Your task to perform on an android device: remove spam from my inbox in the gmail app Image 0: 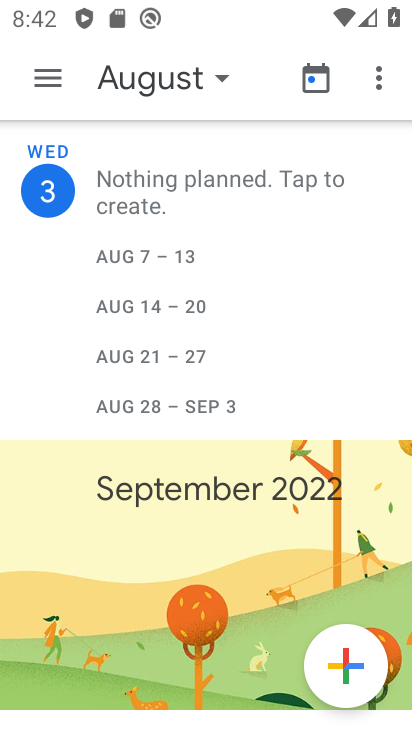
Step 0: press home button
Your task to perform on an android device: remove spam from my inbox in the gmail app Image 1: 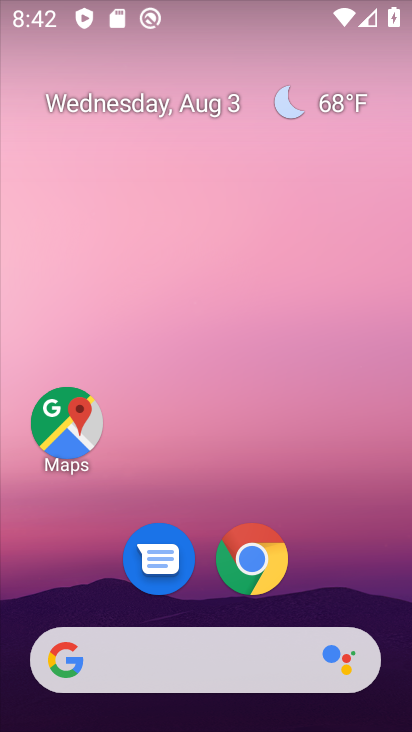
Step 1: drag from (354, 585) to (223, 88)
Your task to perform on an android device: remove spam from my inbox in the gmail app Image 2: 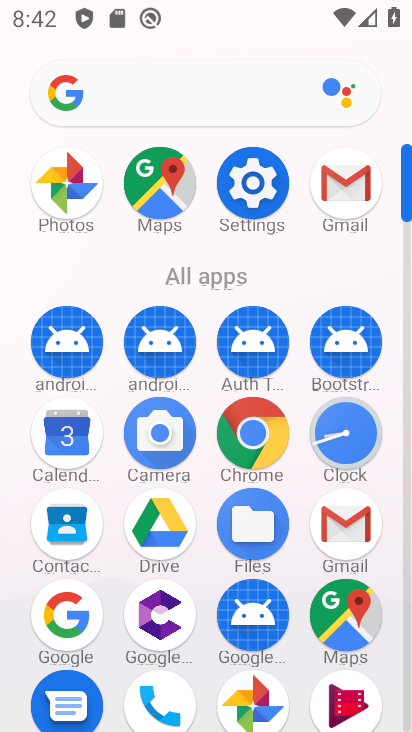
Step 2: click (339, 210)
Your task to perform on an android device: remove spam from my inbox in the gmail app Image 3: 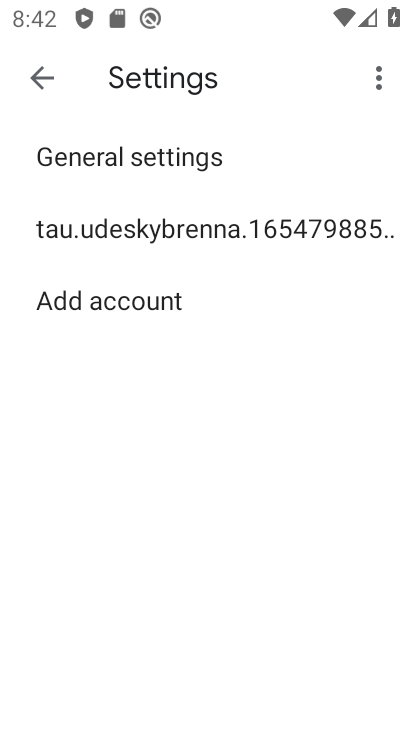
Step 3: click (43, 72)
Your task to perform on an android device: remove spam from my inbox in the gmail app Image 4: 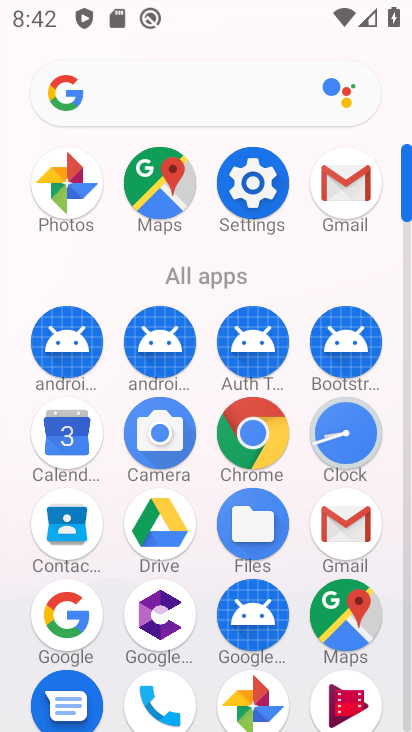
Step 4: click (334, 180)
Your task to perform on an android device: remove spam from my inbox in the gmail app Image 5: 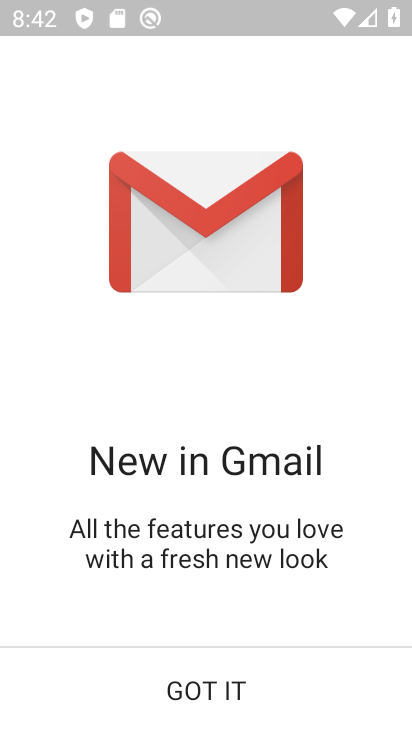
Step 5: click (215, 697)
Your task to perform on an android device: remove spam from my inbox in the gmail app Image 6: 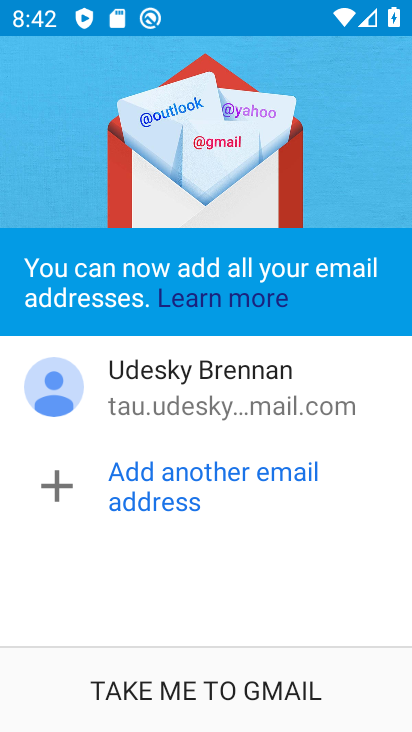
Step 6: click (244, 693)
Your task to perform on an android device: remove spam from my inbox in the gmail app Image 7: 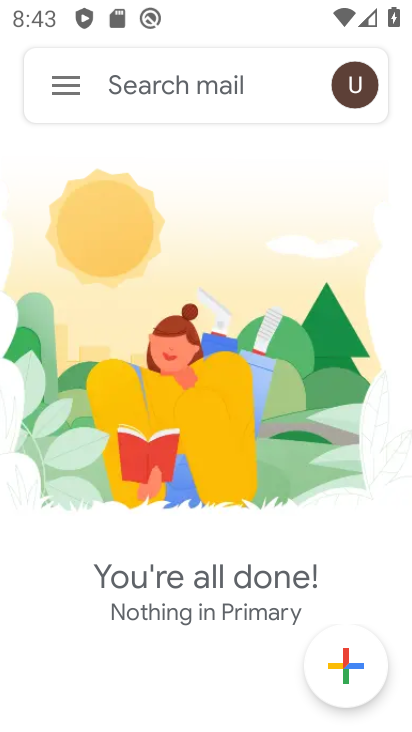
Step 7: click (64, 90)
Your task to perform on an android device: remove spam from my inbox in the gmail app Image 8: 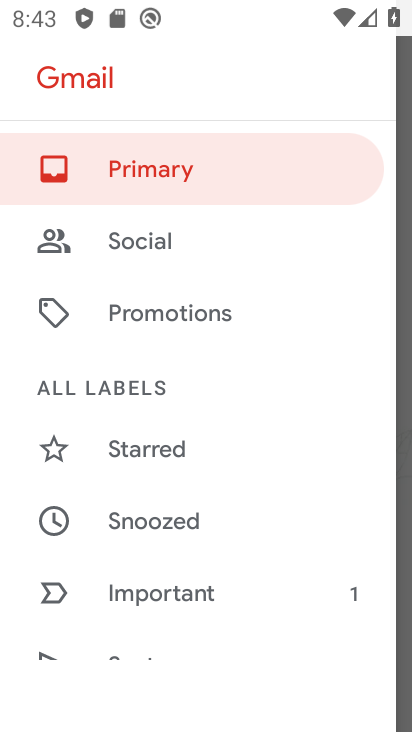
Step 8: drag from (268, 634) to (227, 161)
Your task to perform on an android device: remove spam from my inbox in the gmail app Image 9: 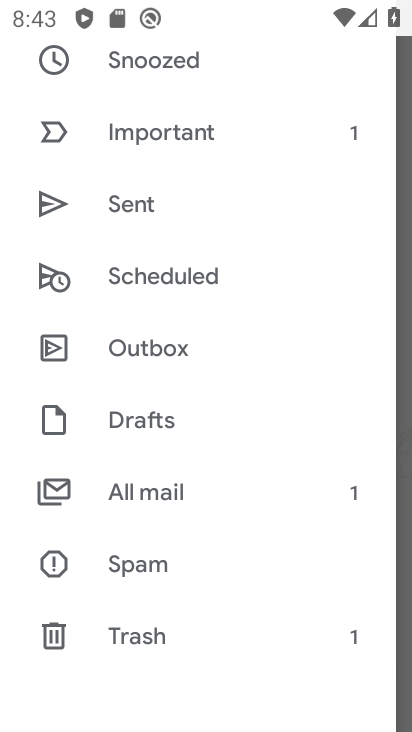
Step 9: click (202, 550)
Your task to perform on an android device: remove spam from my inbox in the gmail app Image 10: 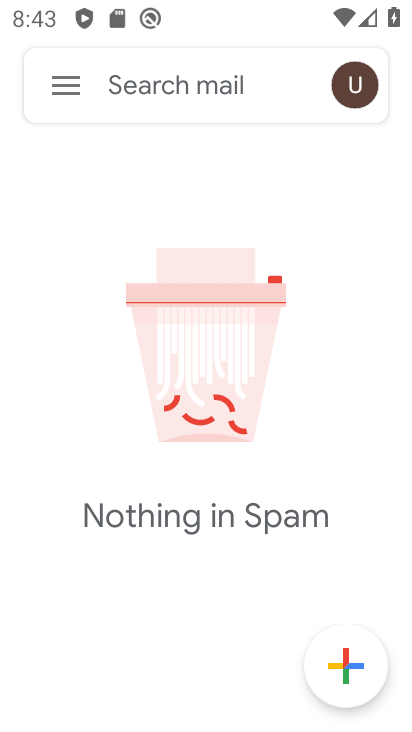
Step 10: task complete